Your task to perform on an android device: open app "ZOOM Cloud Meetings" Image 0: 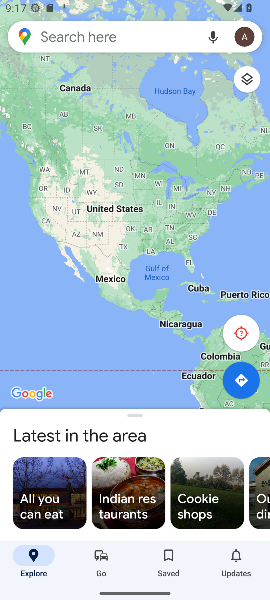
Step 0: press home button
Your task to perform on an android device: open app "ZOOM Cloud Meetings" Image 1: 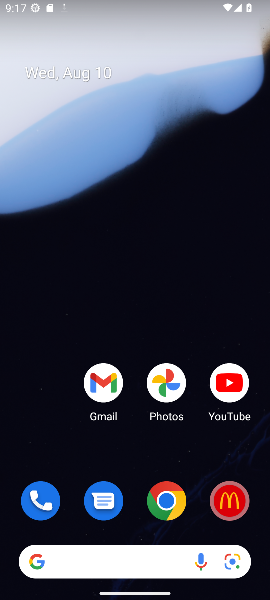
Step 1: drag from (127, 534) to (136, 5)
Your task to perform on an android device: open app "ZOOM Cloud Meetings" Image 2: 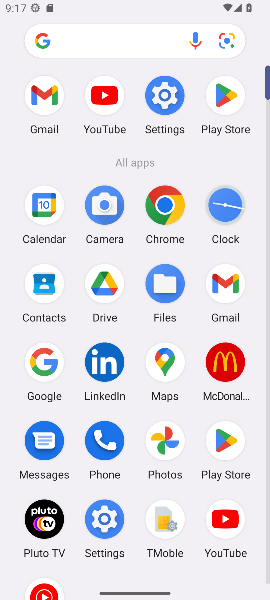
Step 2: click (221, 106)
Your task to perform on an android device: open app "ZOOM Cloud Meetings" Image 3: 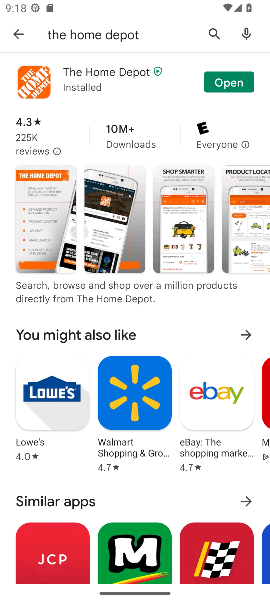
Step 3: click (211, 38)
Your task to perform on an android device: open app "ZOOM Cloud Meetings" Image 4: 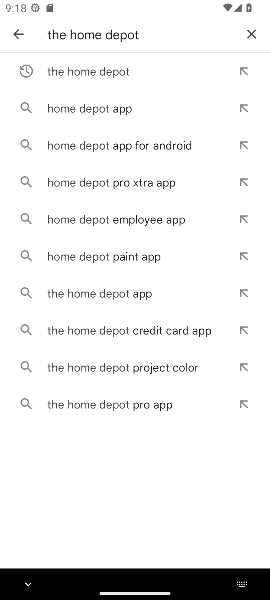
Step 4: click (260, 30)
Your task to perform on an android device: open app "ZOOM Cloud Meetings" Image 5: 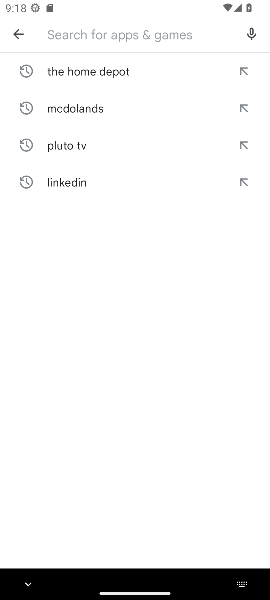
Step 5: type "zoom"
Your task to perform on an android device: open app "ZOOM Cloud Meetings" Image 6: 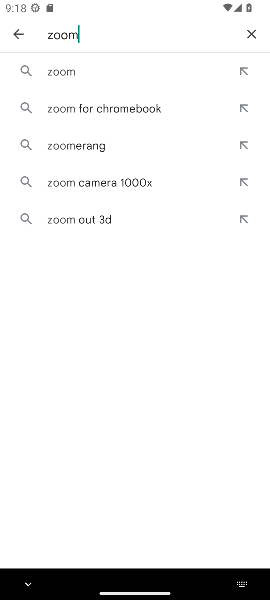
Step 6: click (156, 79)
Your task to perform on an android device: open app "ZOOM Cloud Meetings" Image 7: 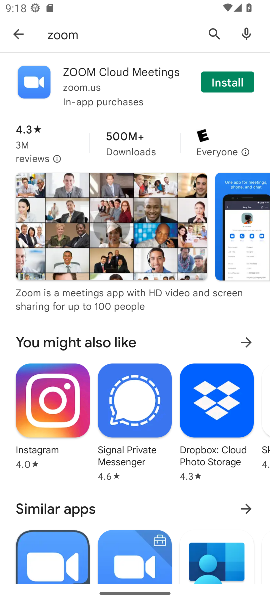
Step 7: click (210, 85)
Your task to perform on an android device: open app "ZOOM Cloud Meetings" Image 8: 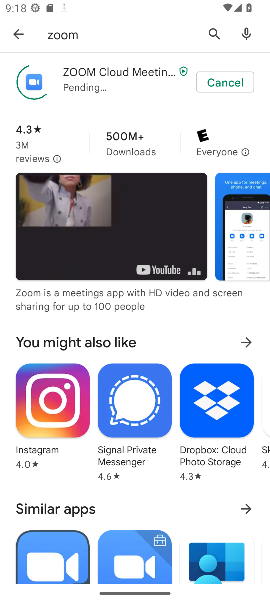
Step 8: task complete